Your task to perform on an android device: toggle location history Image 0: 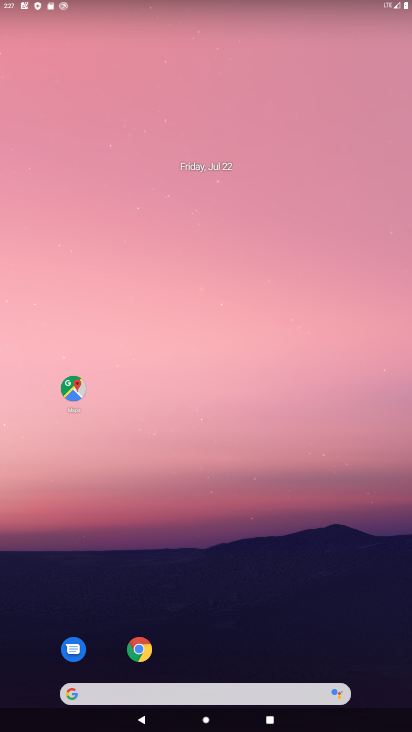
Step 0: drag from (194, 657) to (201, 269)
Your task to perform on an android device: toggle location history Image 1: 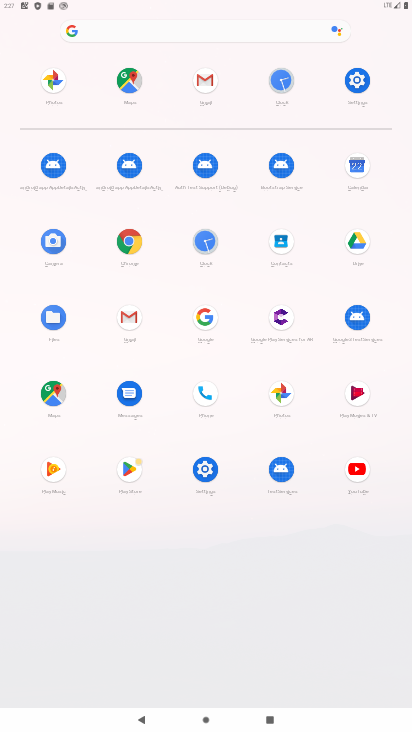
Step 1: click (206, 467)
Your task to perform on an android device: toggle location history Image 2: 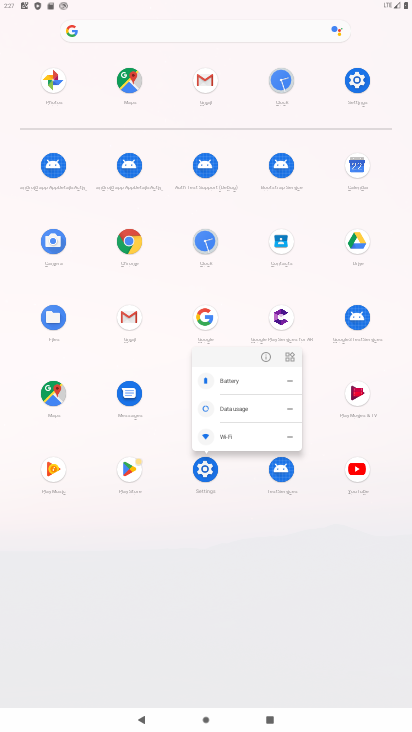
Step 2: click (267, 359)
Your task to perform on an android device: toggle location history Image 3: 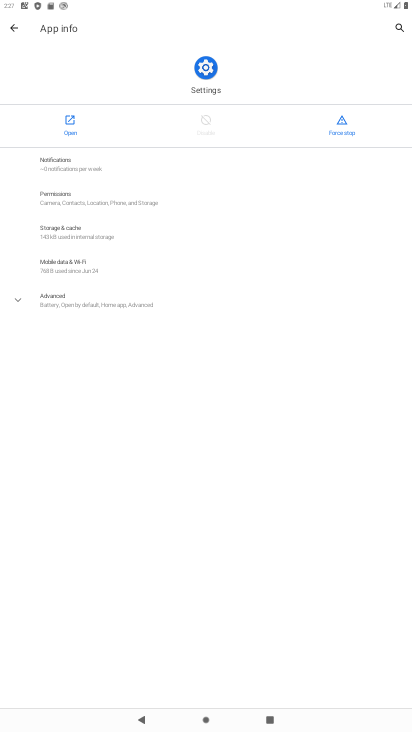
Step 3: click (73, 130)
Your task to perform on an android device: toggle location history Image 4: 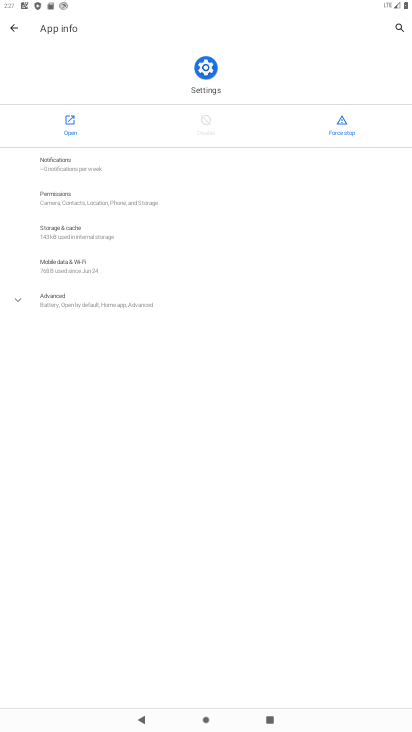
Step 4: click (73, 130)
Your task to perform on an android device: toggle location history Image 5: 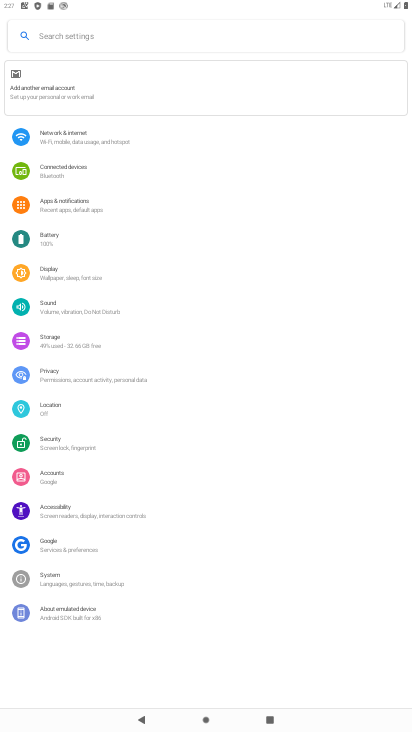
Step 5: click (73, 200)
Your task to perform on an android device: toggle location history Image 6: 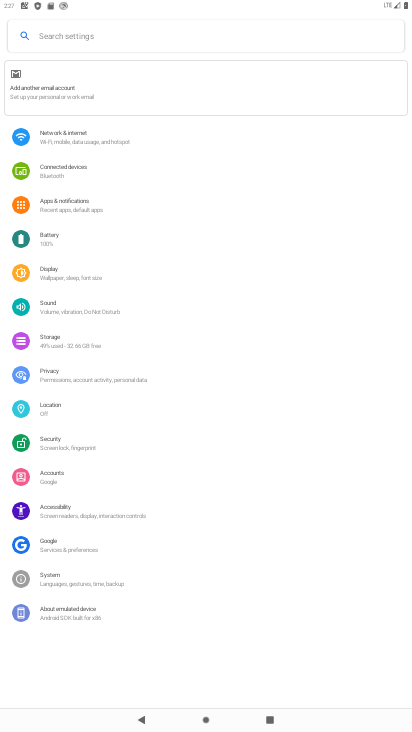
Step 6: click (73, 200)
Your task to perform on an android device: toggle location history Image 7: 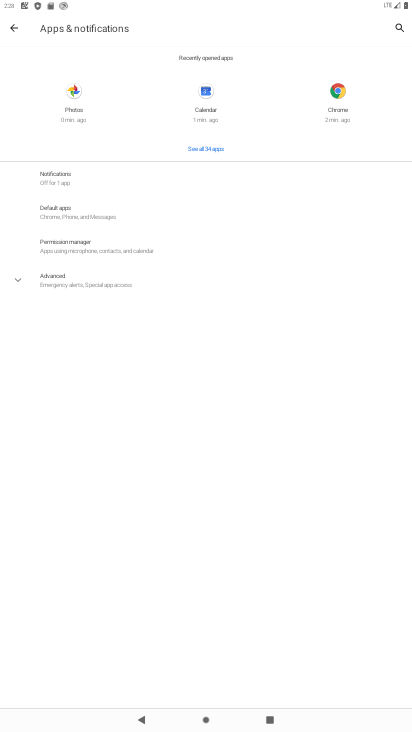
Step 7: click (84, 178)
Your task to perform on an android device: toggle location history Image 8: 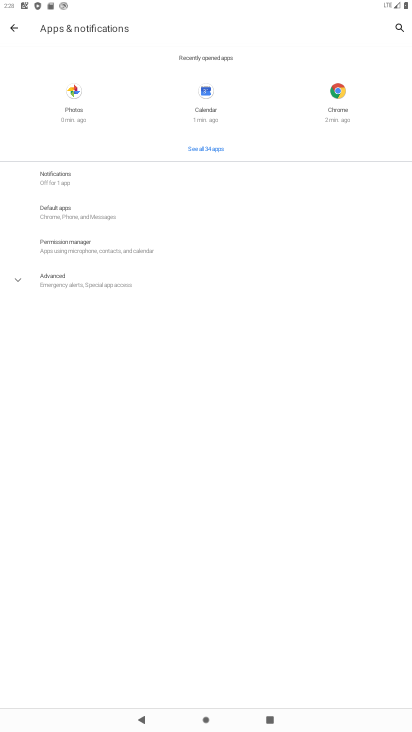
Step 8: click (84, 178)
Your task to perform on an android device: toggle location history Image 9: 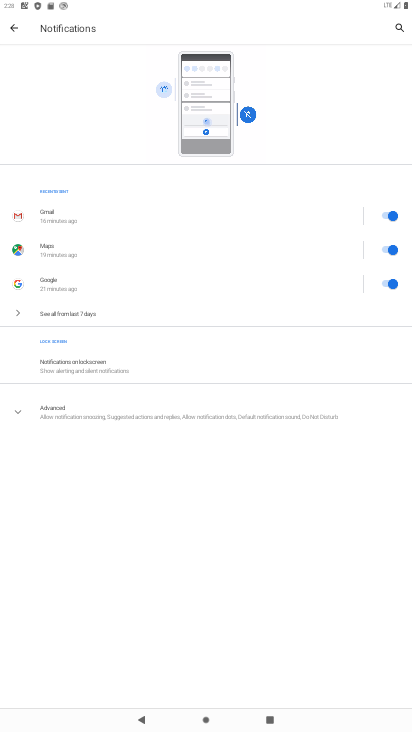
Step 9: click (116, 424)
Your task to perform on an android device: toggle location history Image 10: 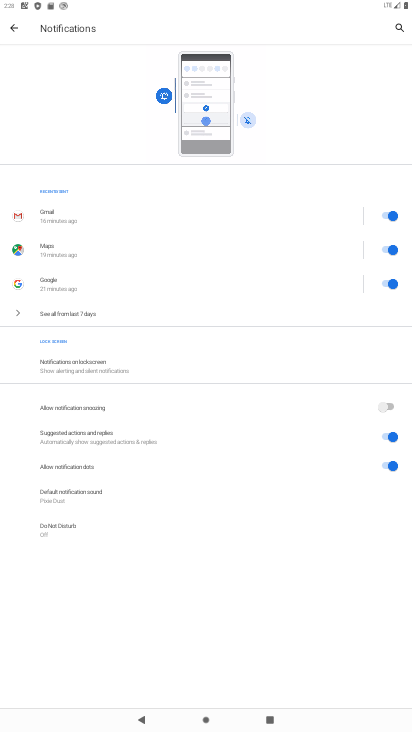
Step 10: click (5, 20)
Your task to perform on an android device: toggle location history Image 11: 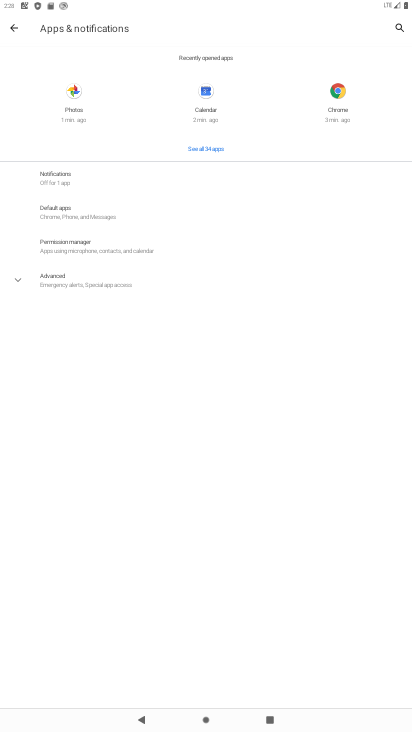
Step 11: click (74, 277)
Your task to perform on an android device: toggle location history Image 12: 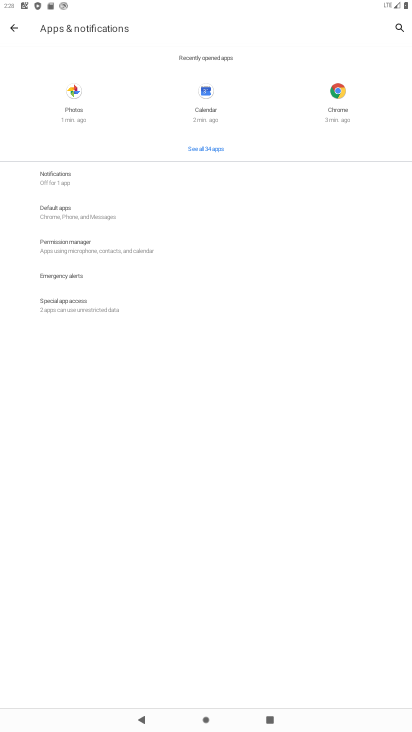
Step 12: click (8, 24)
Your task to perform on an android device: toggle location history Image 13: 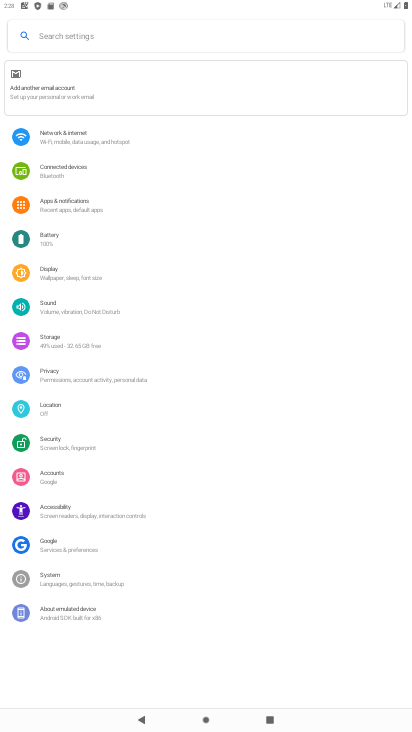
Step 13: click (70, 405)
Your task to perform on an android device: toggle location history Image 14: 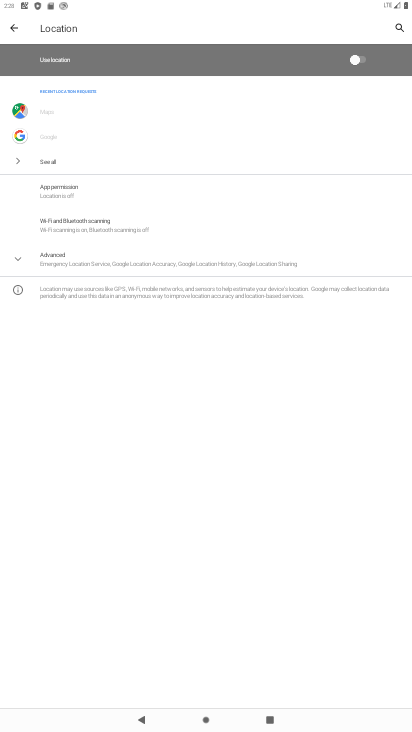
Step 14: click (72, 270)
Your task to perform on an android device: toggle location history Image 15: 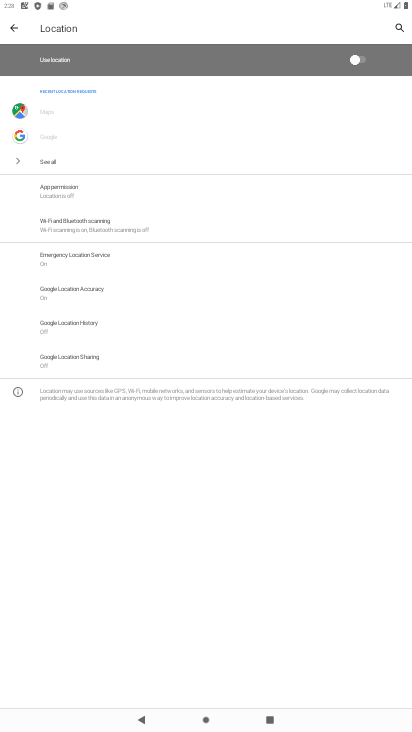
Step 15: click (92, 320)
Your task to perform on an android device: toggle location history Image 16: 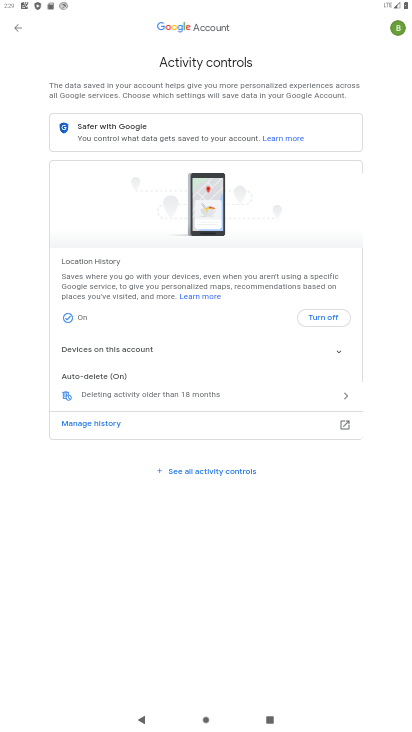
Step 16: click (312, 311)
Your task to perform on an android device: toggle location history Image 17: 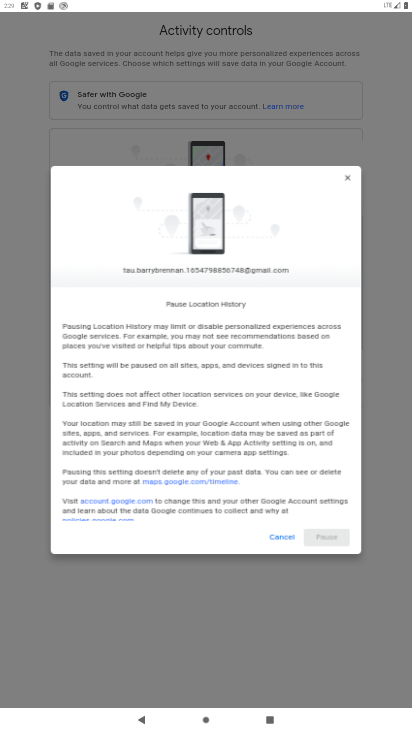
Step 17: drag from (215, 562) to (286, 244)
Your task to perform on an android device: toggle location history Image 18: 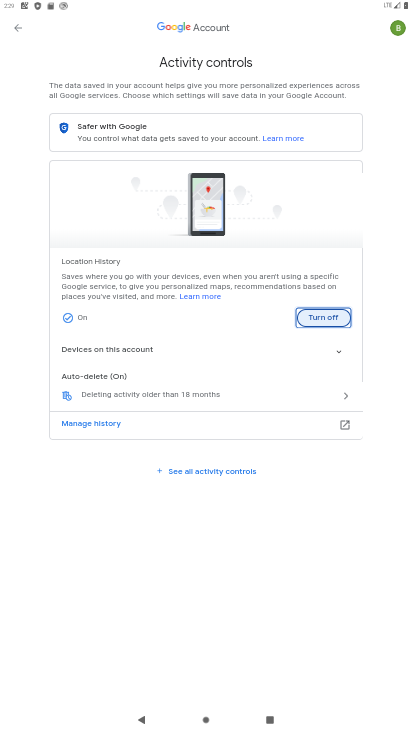
Step 18: drag from (246, 498) to (325, 162)
Your task to perform on an android device: toggle location history Image 19: 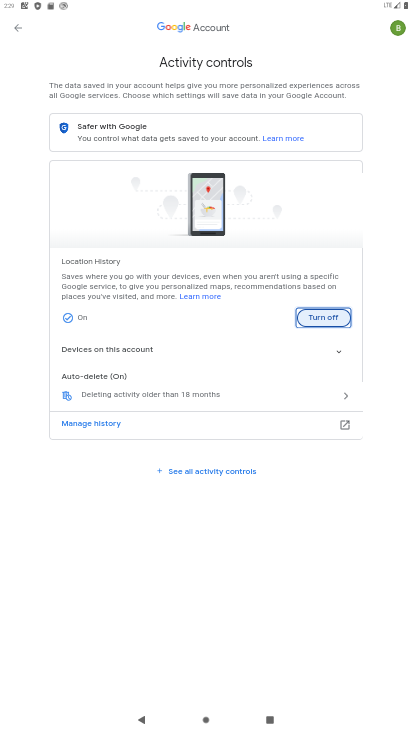
Step 19: click (318, 322)
Your task to perform on an android device: toggle location history Image 20: 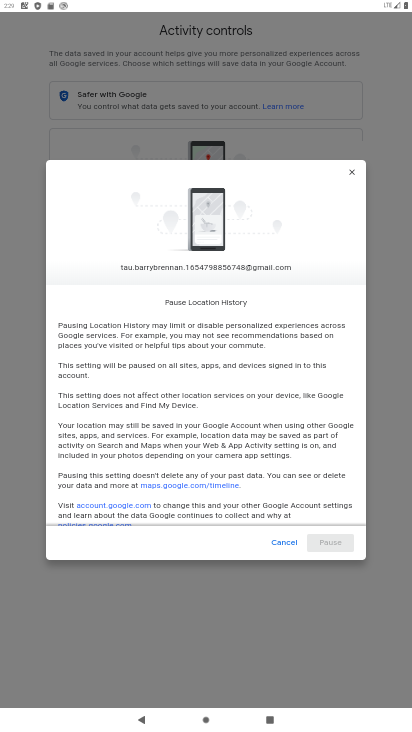
Step 20: drag from (178, 432) to (311, 37)
Your task to perform on an android device: toggle location history Image 21: 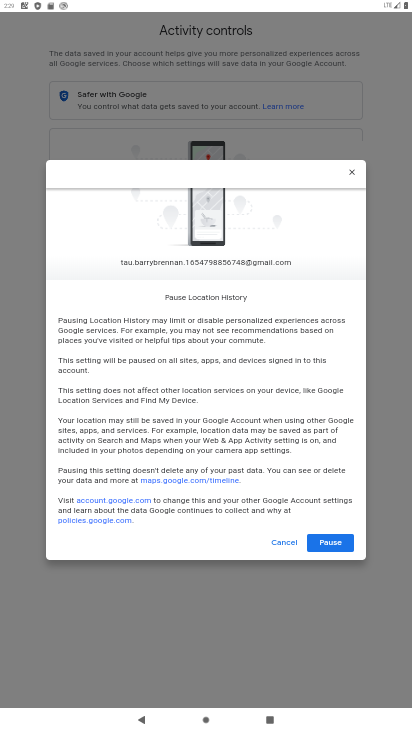
Step 21: click (320, 541)
Your task to perform on an android device: toggle location history Image 22: 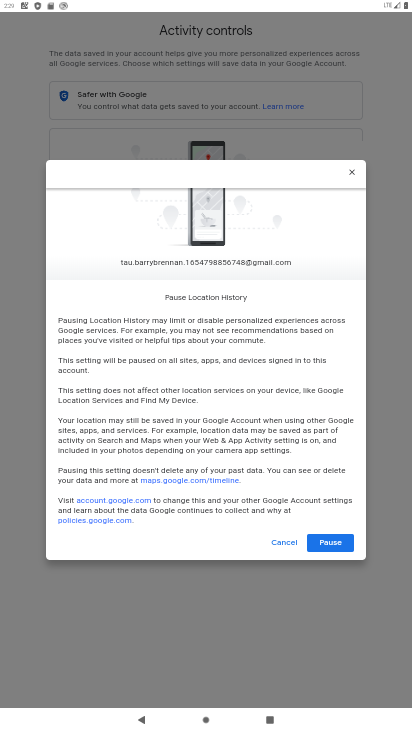
Step 22: task complete